Your task to perform on an android device: Open accessibility settings Image 0: 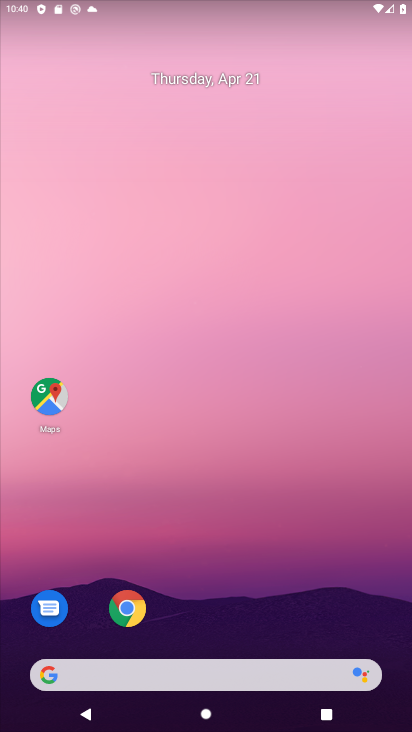
Step 0: drag from (193, 477) to (133, 128)
Your task to perform on an android device: Open accessibility settings Image 1: 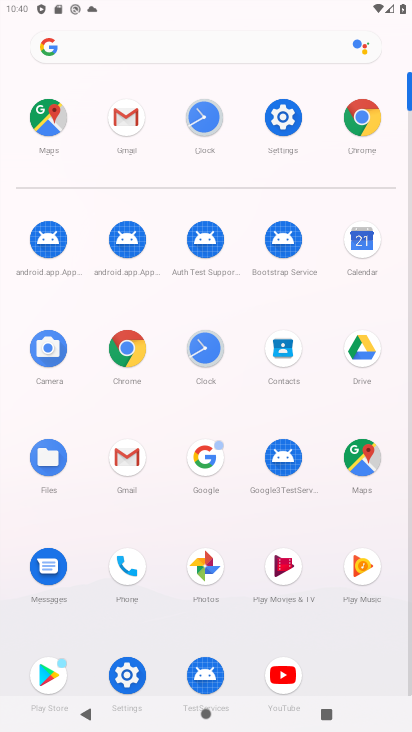
Step 1: click (291, 114)
Your task to perform on an android device: Open accessibility settings Image 2: 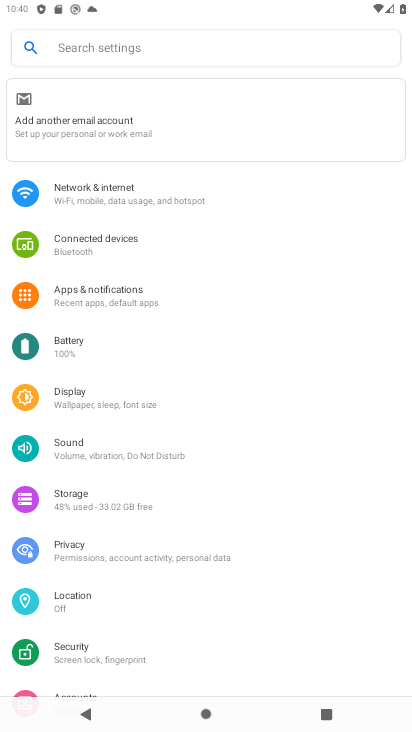
Step 2: drag from (123, 638) to (141, 199)
Your task to perform on an android device: Open accessibility settings Image 3: 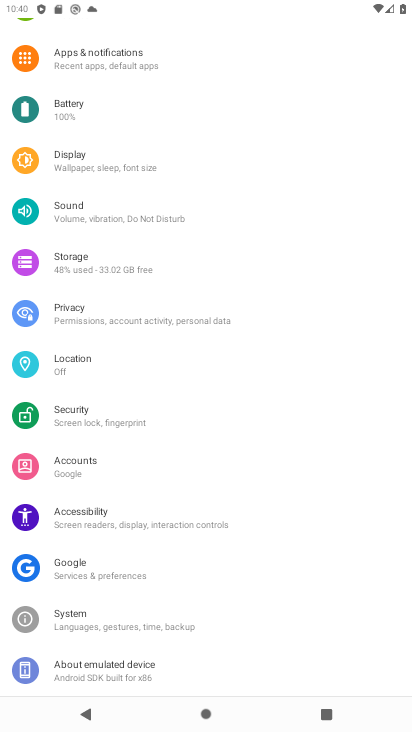
Step 3: click (106, 519)
Your task to perform on an android device: Open accessibility settings Image 4: 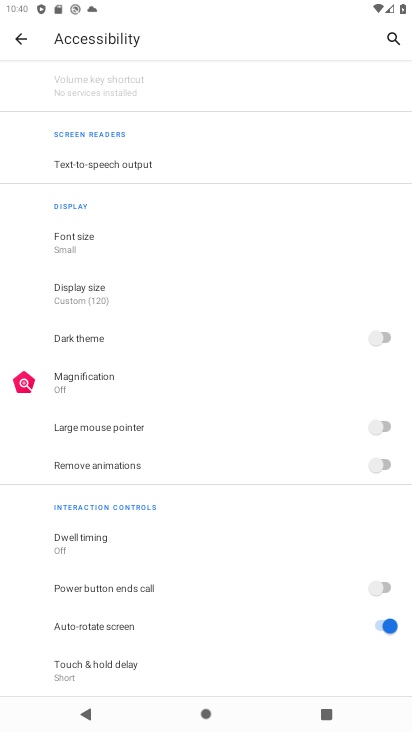
Step 4: task complete